Your task to perform on an android device: Toggle the flashlight Image 0: 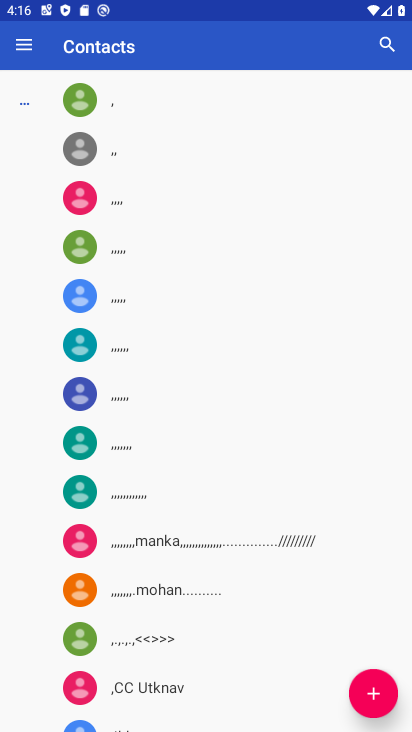
Step 0: press home button
Your task to perform on an android device: Toggle the flashlight Image 1: 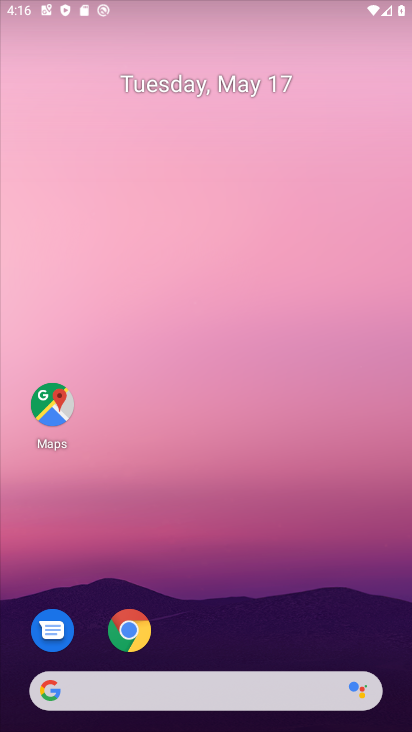
Step 1: drag from (225, 724) to (225, 162)
Your task to perform on an android device: Toggle the flashlight Image 2: 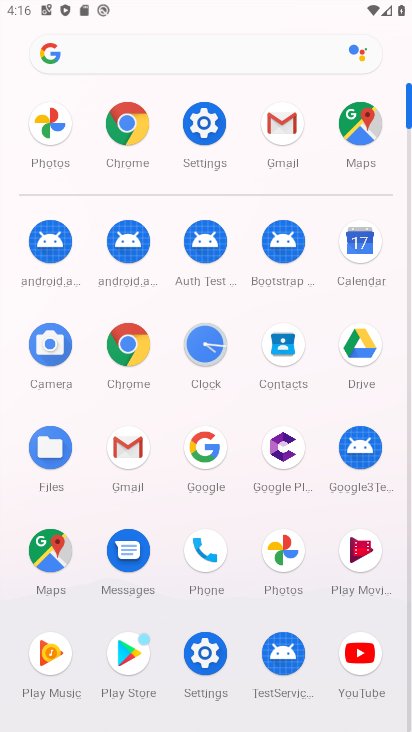
Step 2: click (199, 117)
Your task to perform on an android device: Toggle the flashlight Image 3: 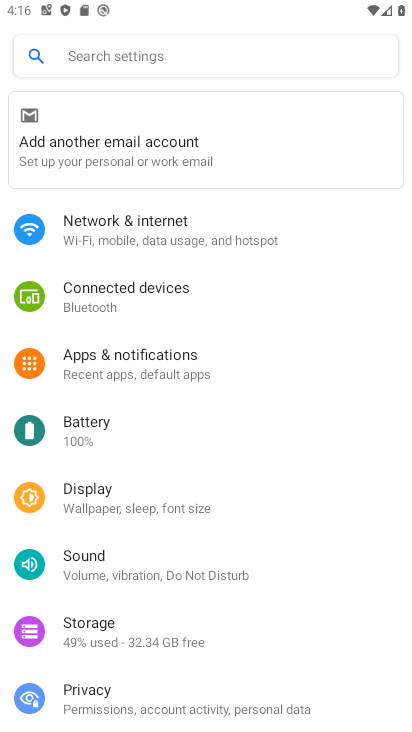
Step 3: task complete